Your task to perform on an android device: turn on wifi Image 0: 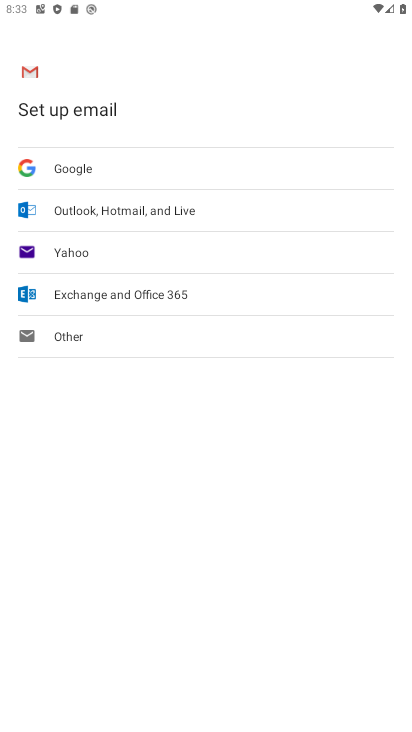
Step 0: press home button
Your task to perform on an android device: turn on wifi Image 1: 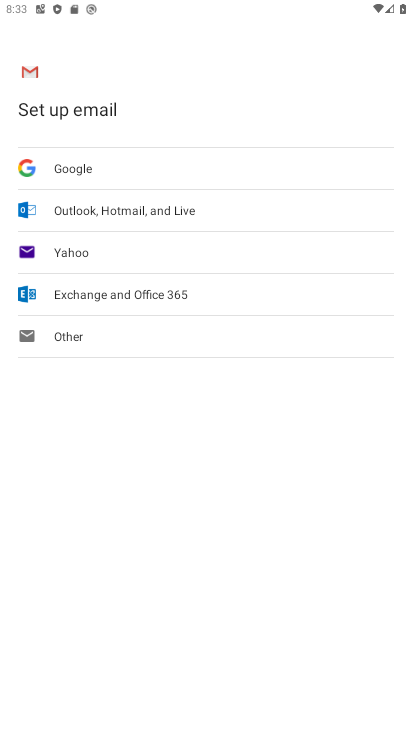
Step 1: press home button
Your task to perform on an android device: turn on wifi Image 2: 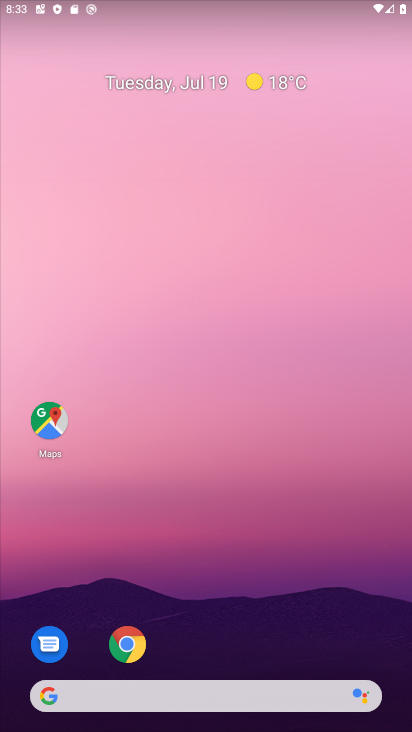
Step 2: drag from (212, 684) to (183, 216)
Your task to perform on an android device: turn on wifi Image 3: 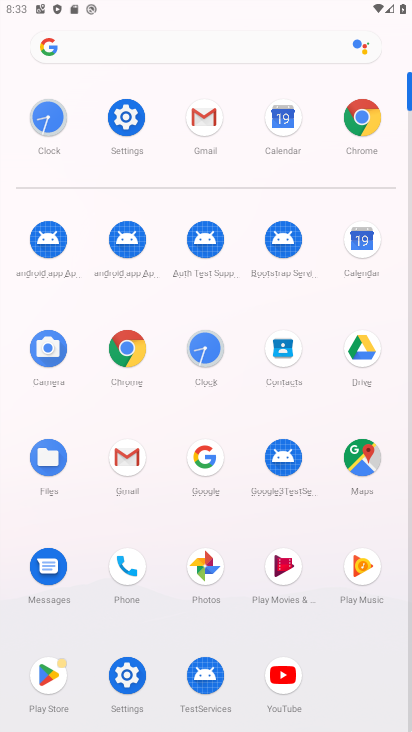
Step 3: click (135, 114)
Your task to perform on an android device: turn on wifi Image 4: 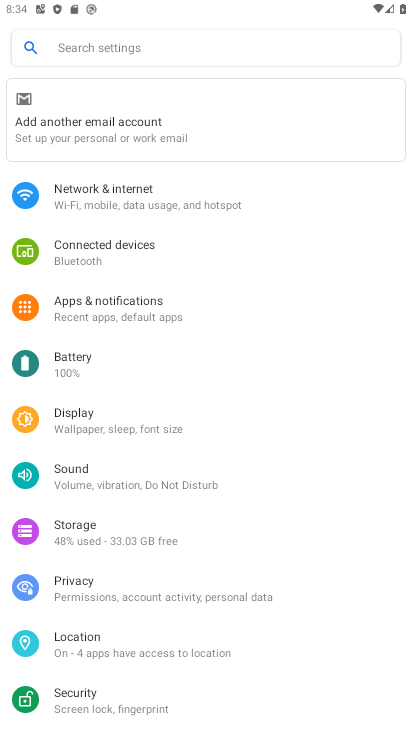
Step 4: click (134, 193)
Your task to perform on an android device: turn on wifi Image 5: 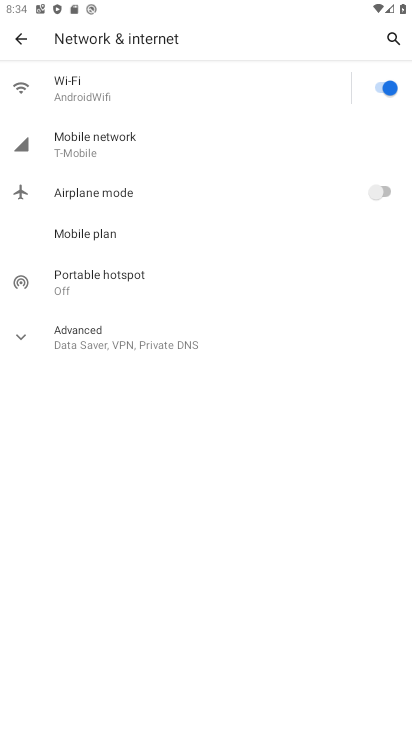
Step 5: task complete